Your task to perform on an android device: change text size in settings app Image 0: 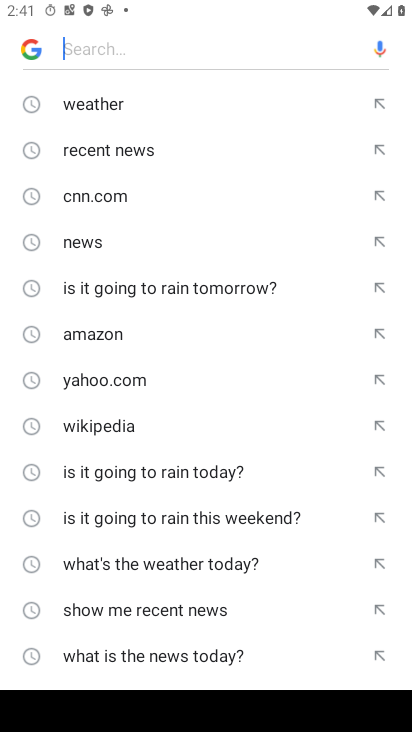
Step 0: press home button
Your task to perform on an android device: change text size in settings app Image 1: 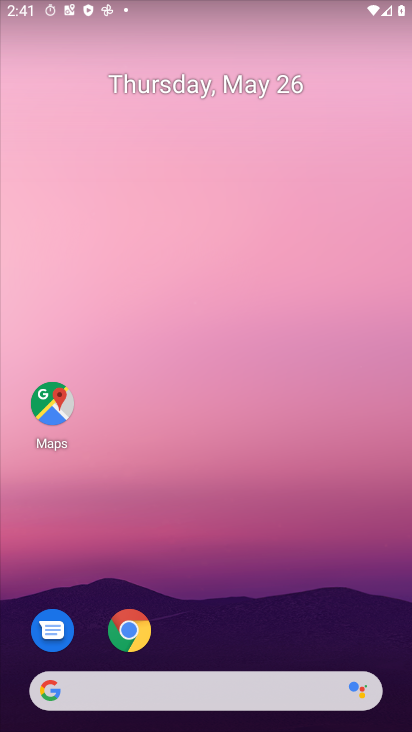
Step 1: drag from (276, 663) to (199, 182)
Your task to perform on an android device: change text size in settings app Image 2: 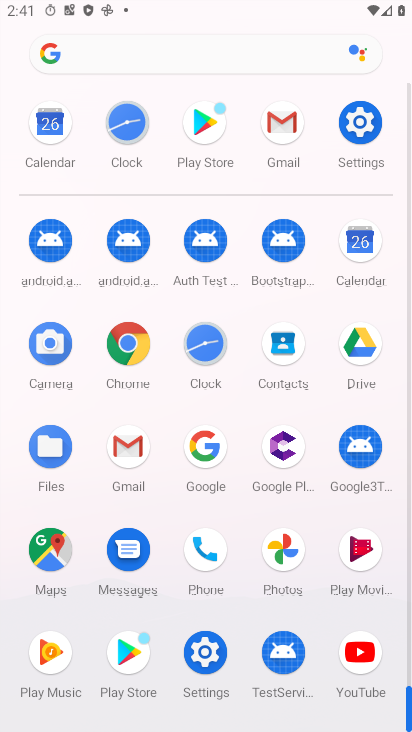
Step 2: click (351, 124)
Your task to perform on an android device: change text size in settings app Image 3: 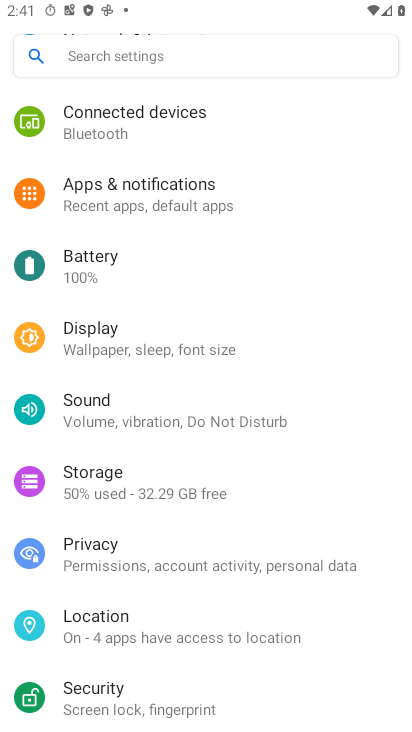
Step 3: click (112, 344)
Your task to perform on an android device: change text size in settings app Image 4: 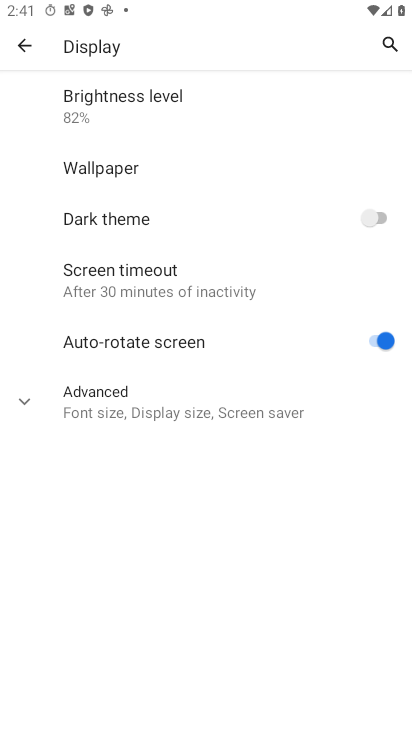
Step 4: click (135, 392)
Your task to perform on an android device: change text size in settings app Image 5: 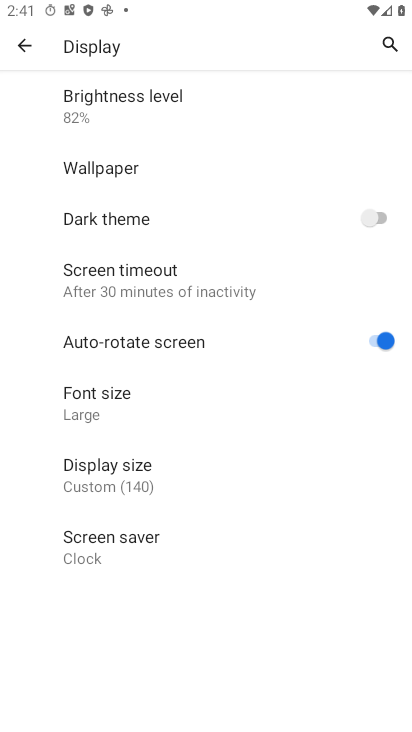
Step 5: click (126, 408)
Your task to perform on an android device: change text size in settings app Image 6: 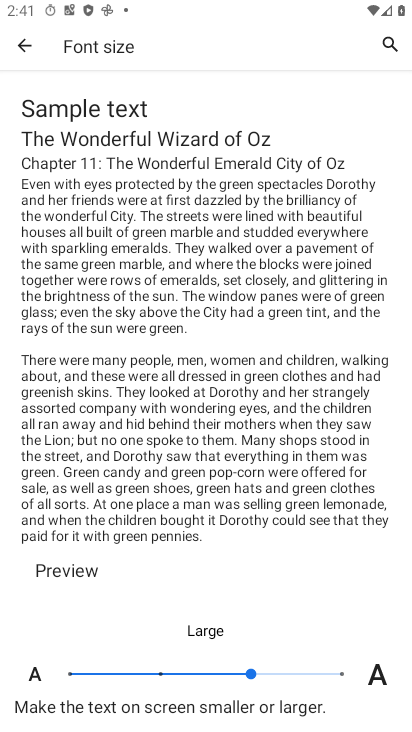
Step 6: click (151, 675)
Your task to perform on an android device: change text size in settings app Image 7: 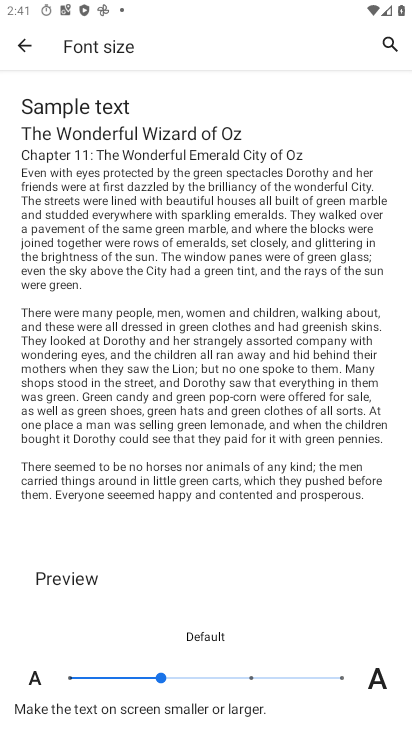
Step 7: task complete